Your task to perform on an android device: open app "DuckDuckGo Privacy Browser" Image 0: 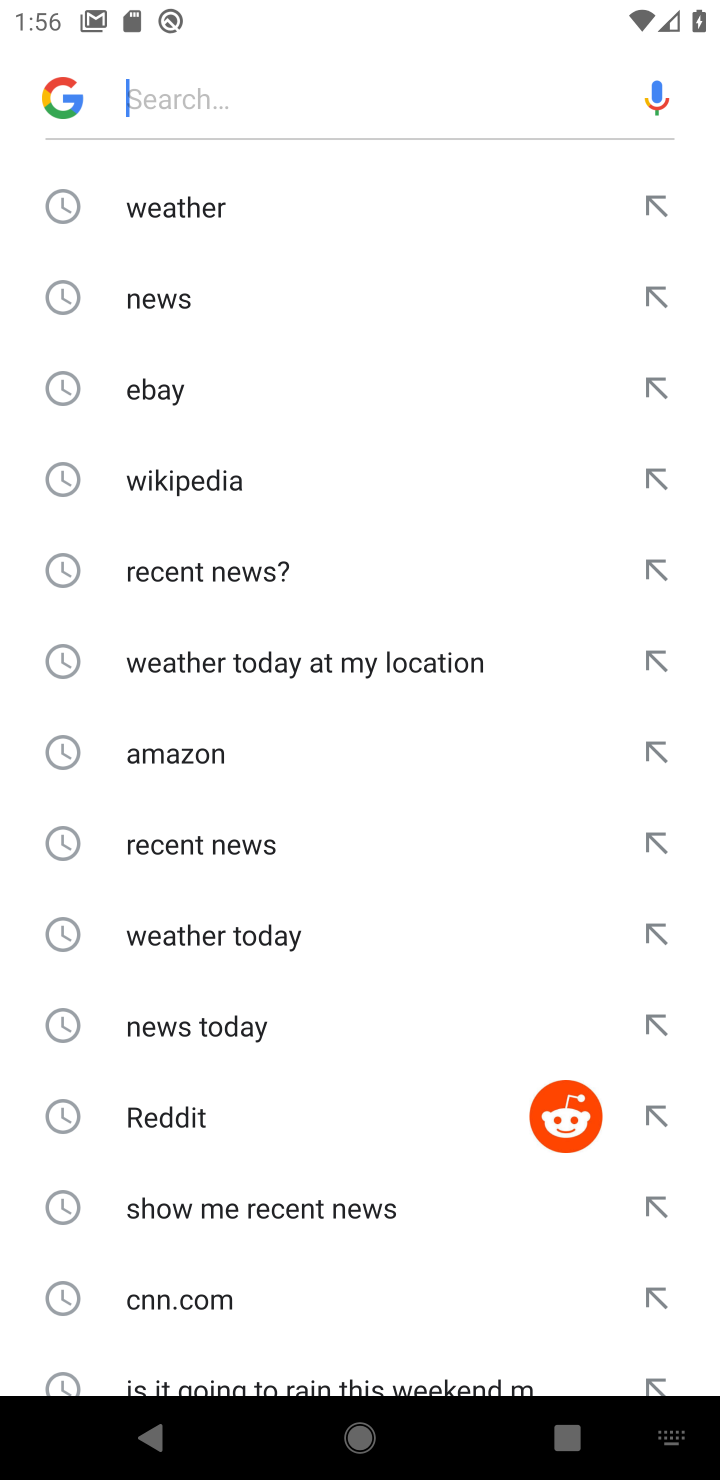
Step 0: press home button
Your task to perform on an android device: open app "DuckDuckGo Privacy Browser" Image 1: 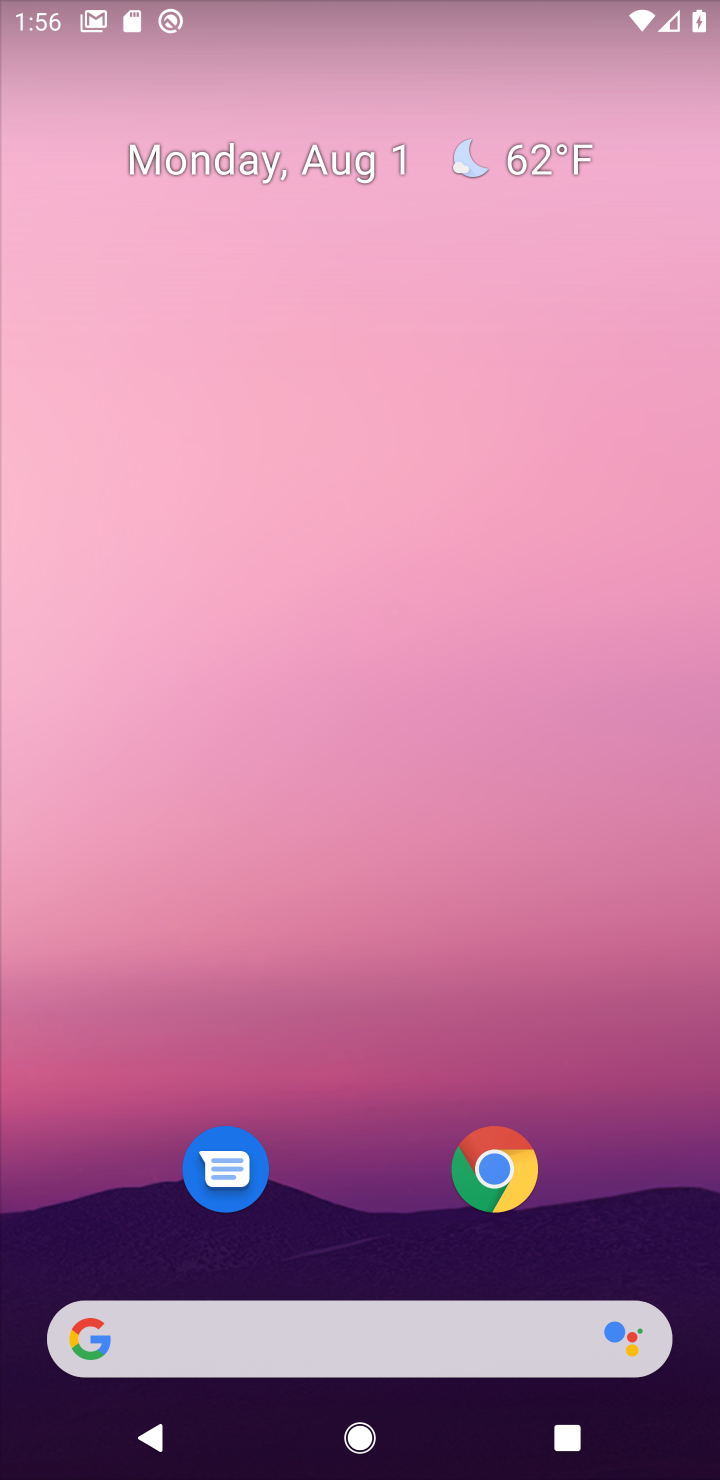
Step 1: drag from (308, 881) to (344, 209)
Your task to perform on an android device: open app "DuckDuckGo Privacy Browser" Image 2: 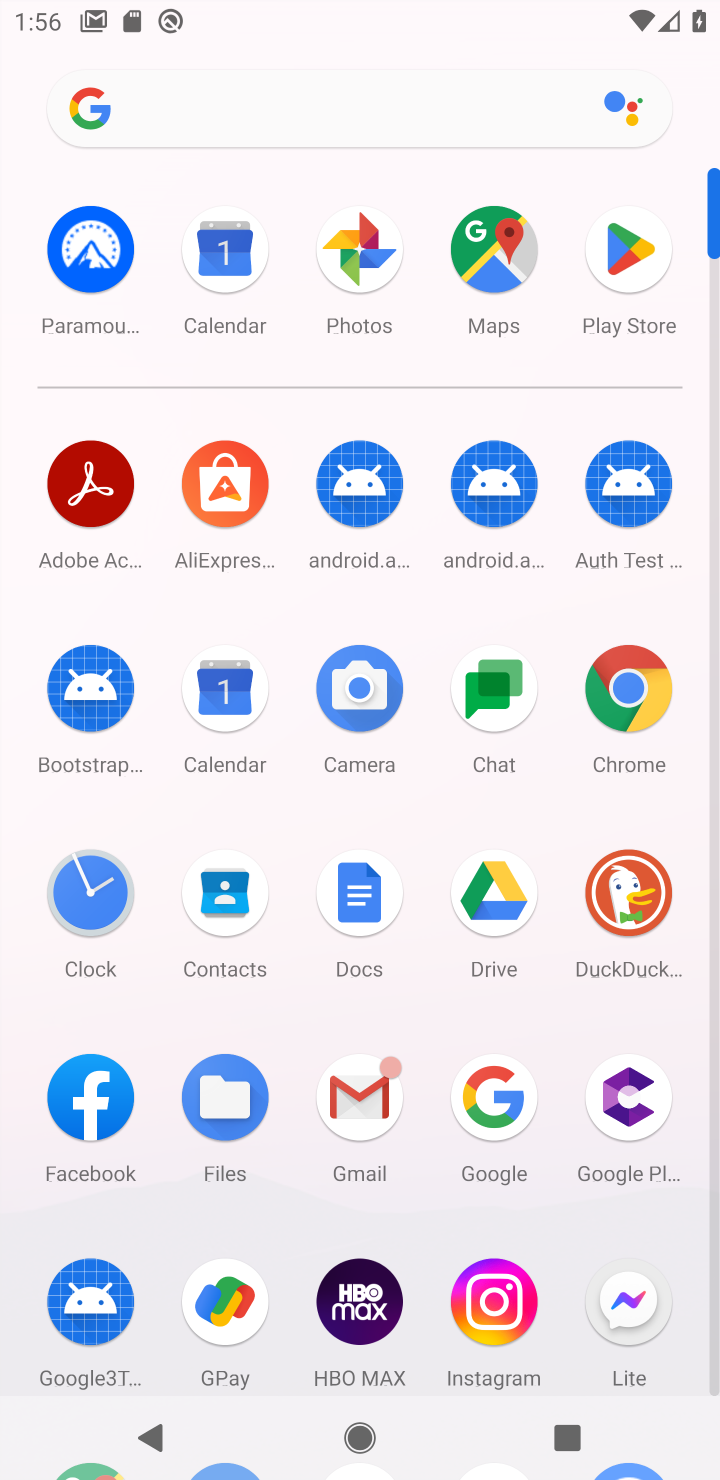
Step 2: click (637, 318)
Your task to perform on an android device: open app "DuckDuckGo Privacy Browser" Image 3: 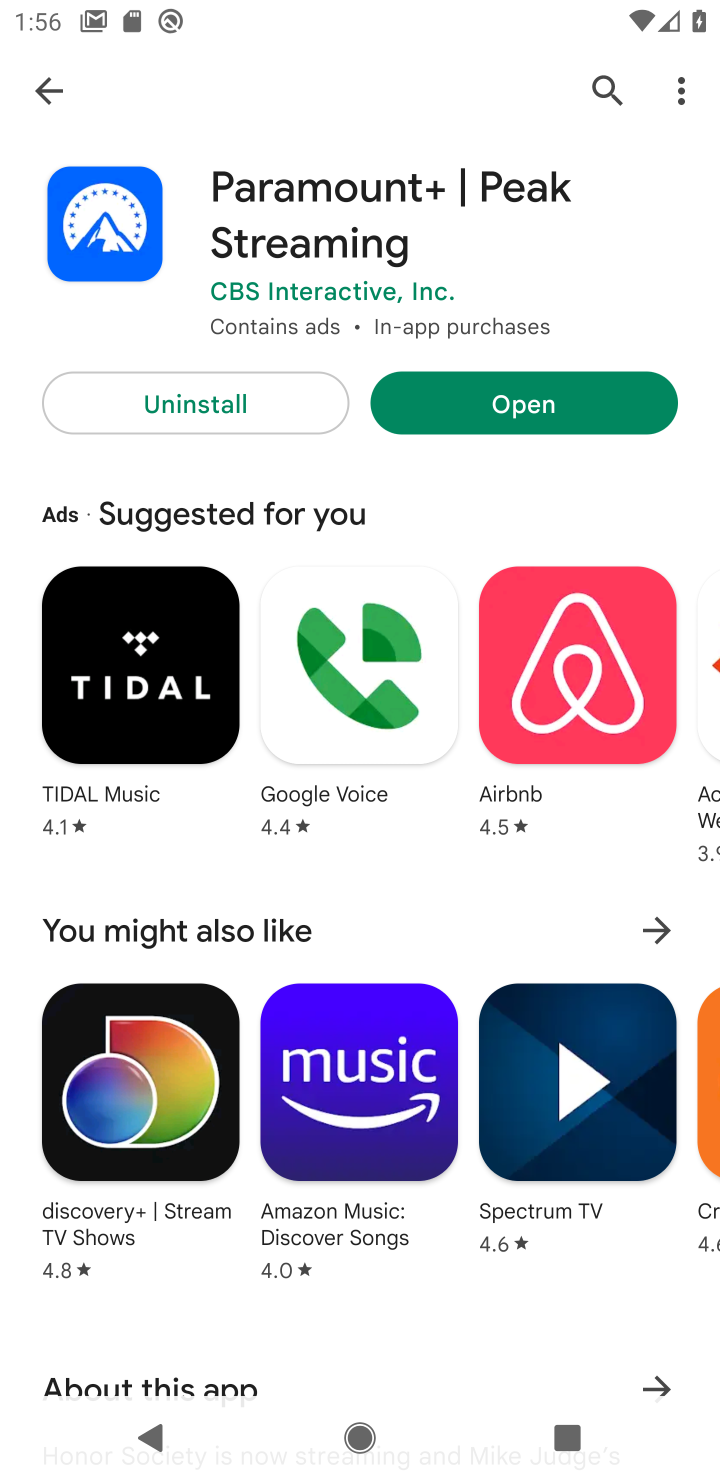
Step 3: click (44, 88)
Your task to perform on an android device: open app "DuckDuckGo Privacy Browser" Image 4: 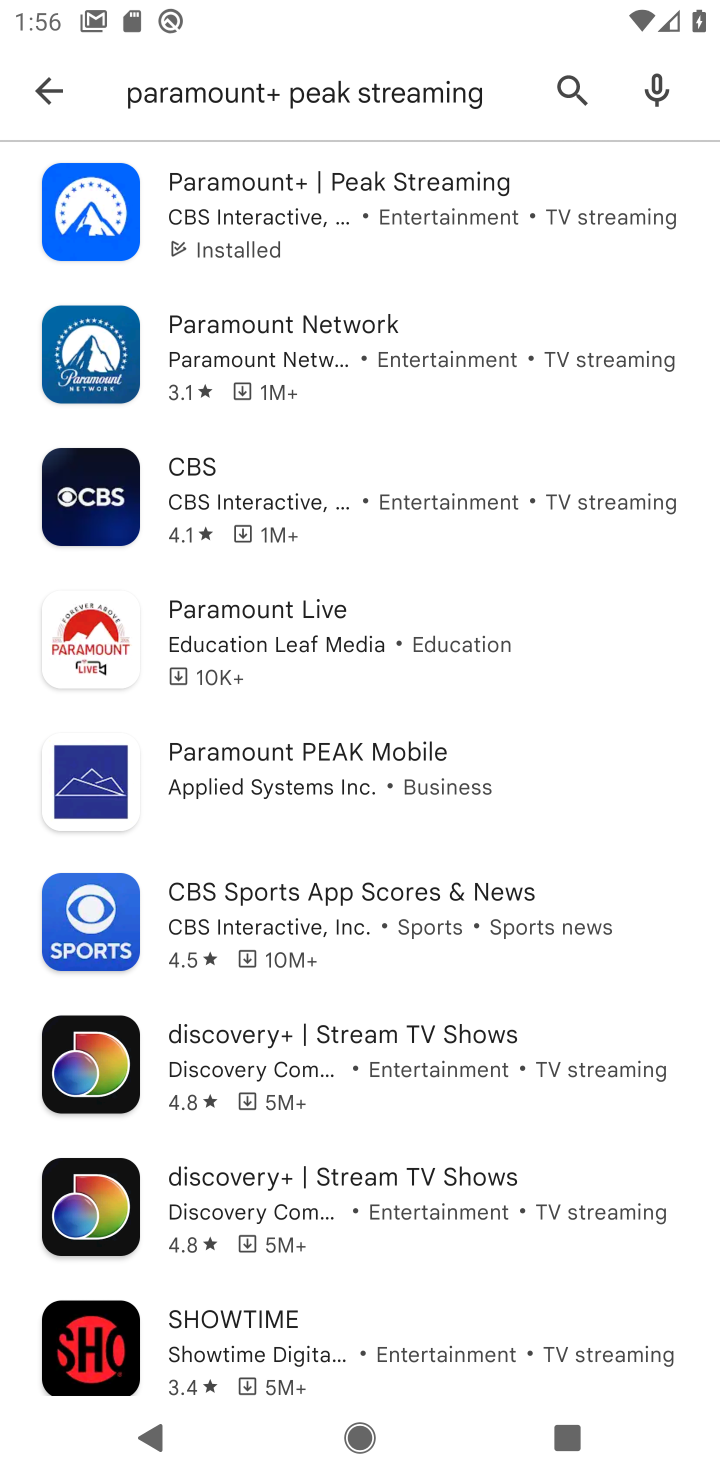
Step 4: click (38, 87)
Your task to perform on an android device: open app "DuckDuckGo Privacy Browser" Image 5: 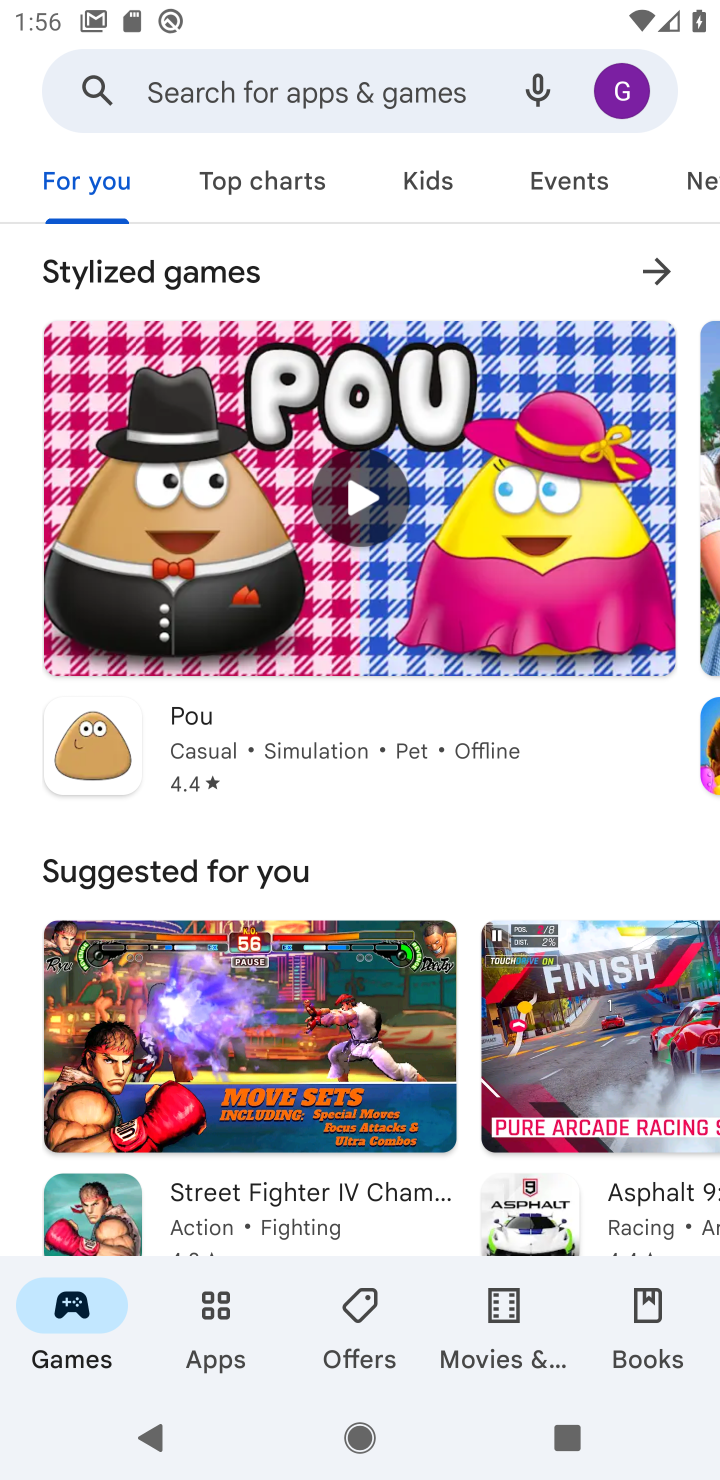
Step 5: click (232, 87)
Your task to perform on an android device: open app "DuckDuckGo Privacy Browser" Image 6: 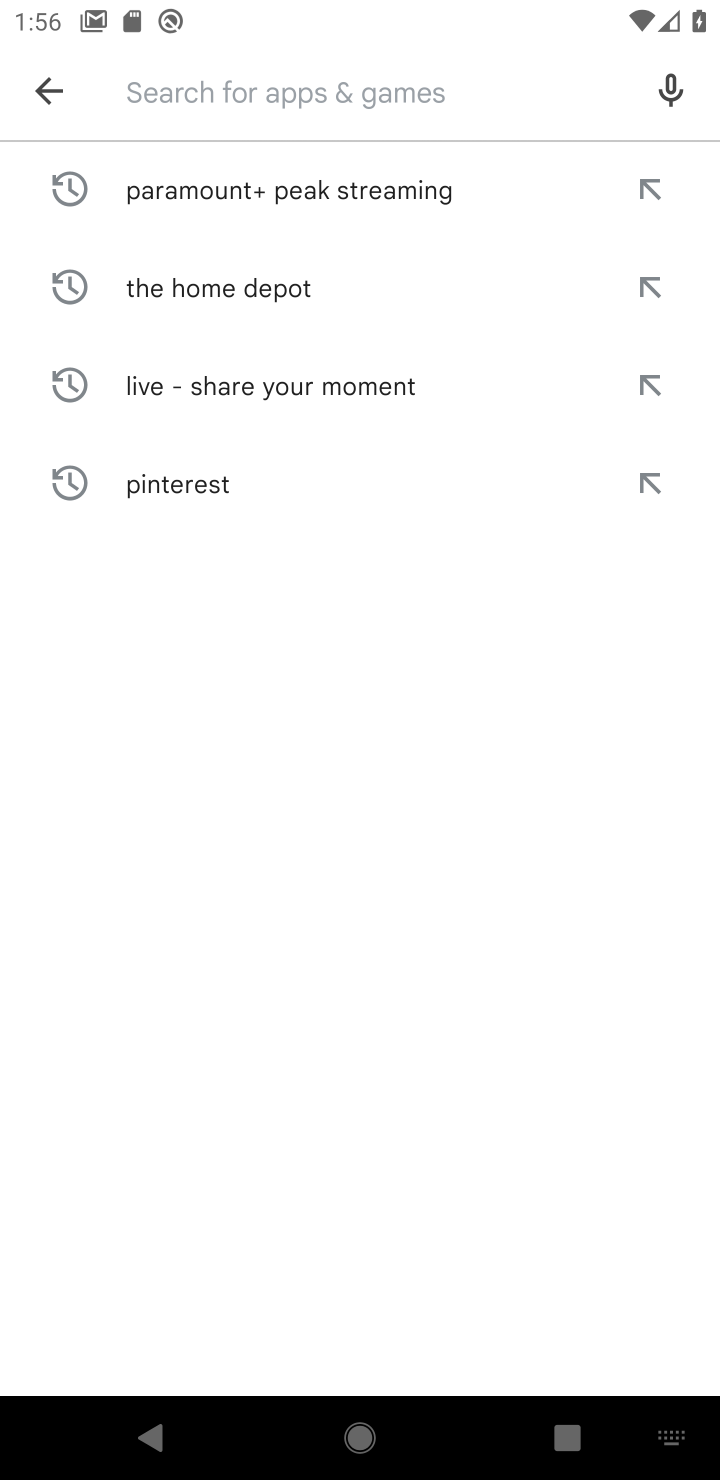
Step 6: type "DuckDuckGo Privacy Browser"
Your task to perform on an android device: open app "DuckDuckGo Privacy Browser" Image 7: 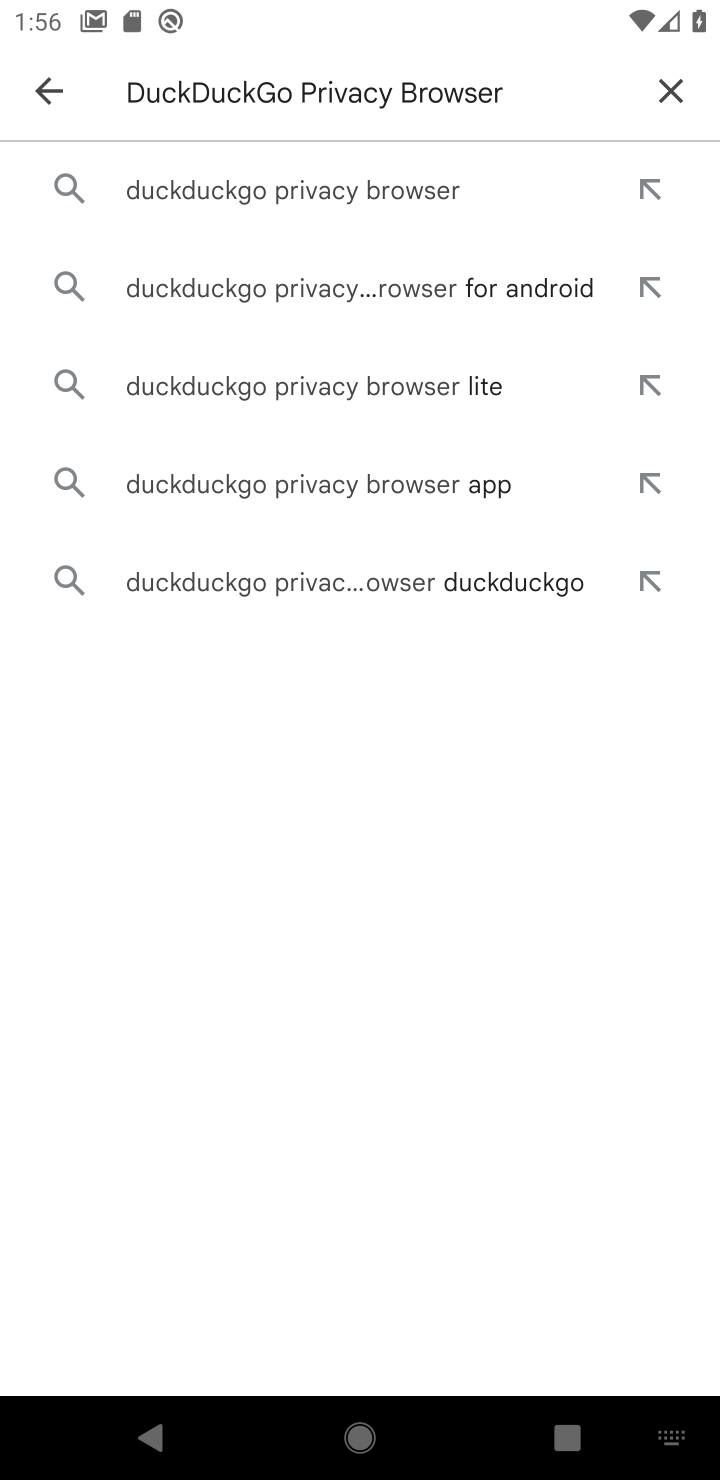
Step 7: click (303, 193)
Your task to perform on an android device: open app "DuckDuckGo Privacy Browser" Image 8: 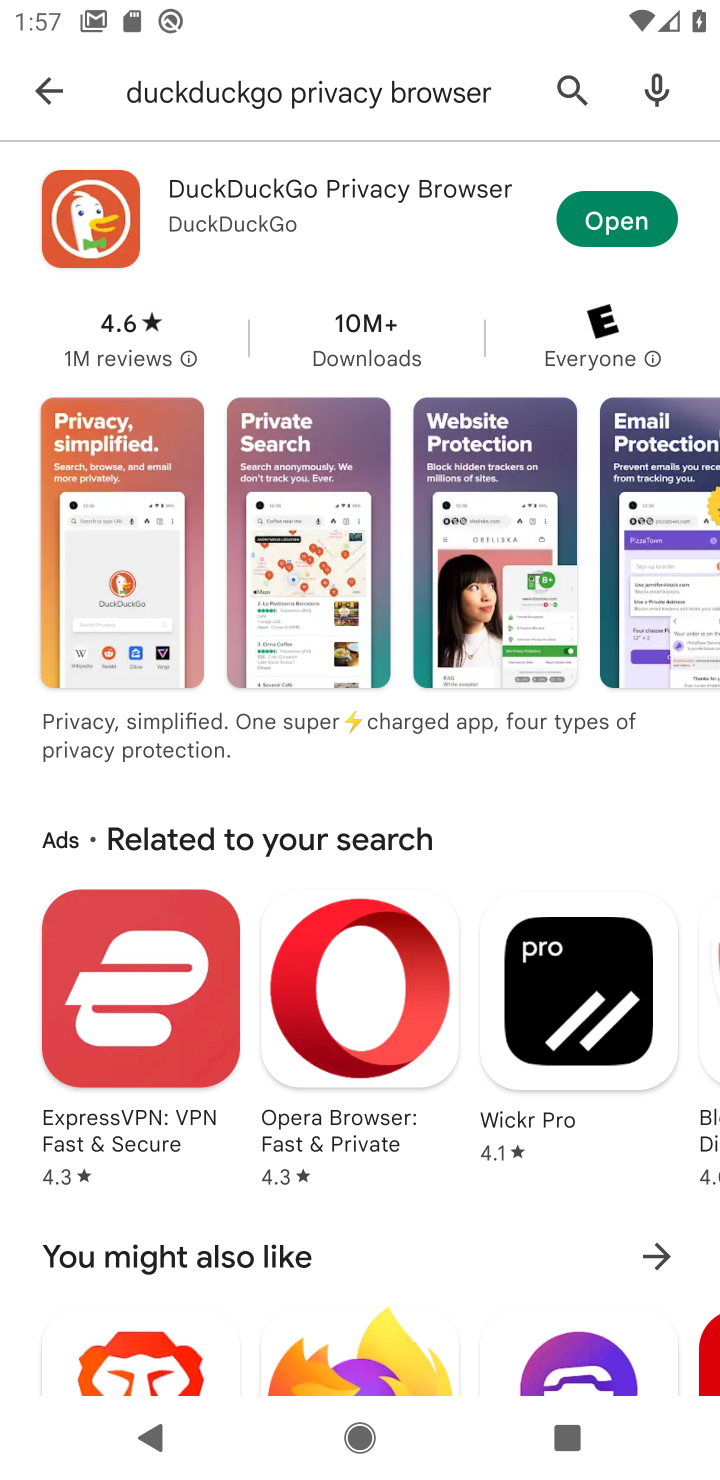
Step 8: click (580, 218)
Your task to perform on an android device: open app "DuckDuckGo Privacy Browser" Image 9: 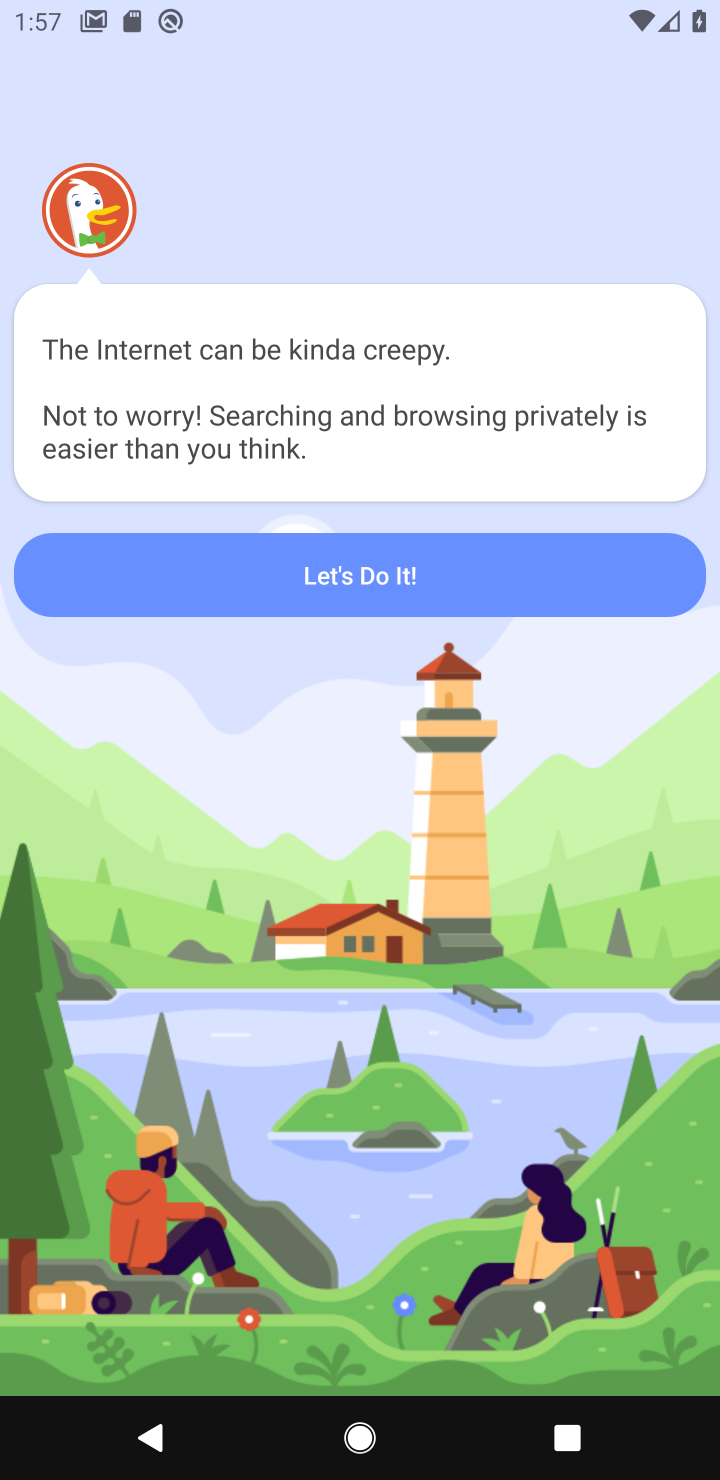
Step 9: task complete